Your task to perform on an android device: show emergency info Image 0: 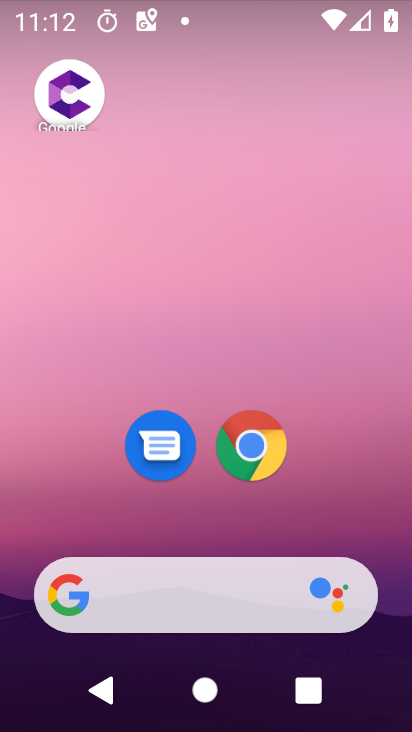
Step 0: drag from (132, 479) to (218, 115)
Your task to perform on an android device: show emergency info Image 1: 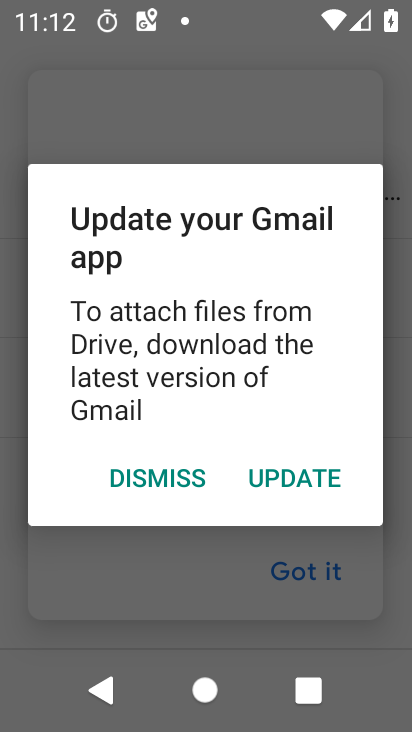
Step 1: press back button
Your task to perform on an android device: show emergency info Image 2: 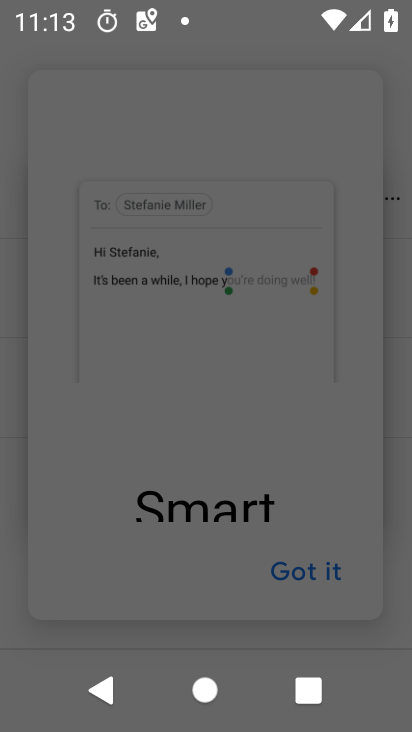
Step 2: press home button
Your task to perform on an android device: show emergency info Image 3: 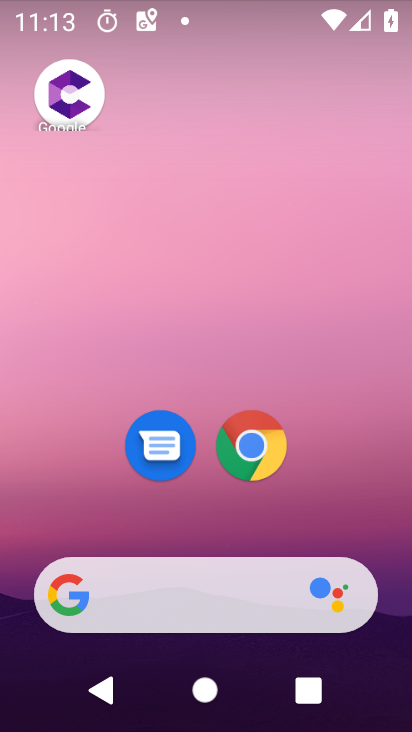
Step 3: drag from (190, 502) to (257, 71)
Your task to perform on an android device: show emergency info Image 4: 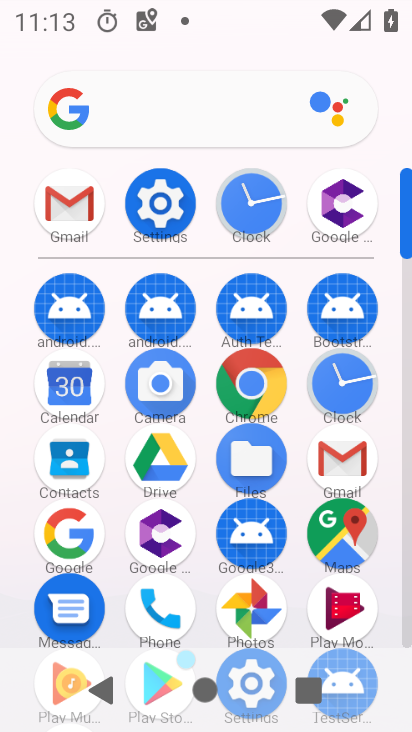
Step 4: click (159, 205)
Your task to perform on an android device: show emergency info Image 5: 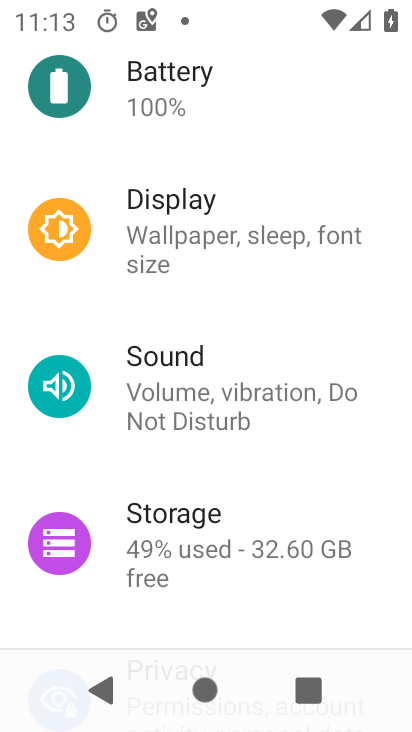
Step 5: drag from (202, 533) to (266, 188)
Your task to perform on an android device: show emergency info Image 6: 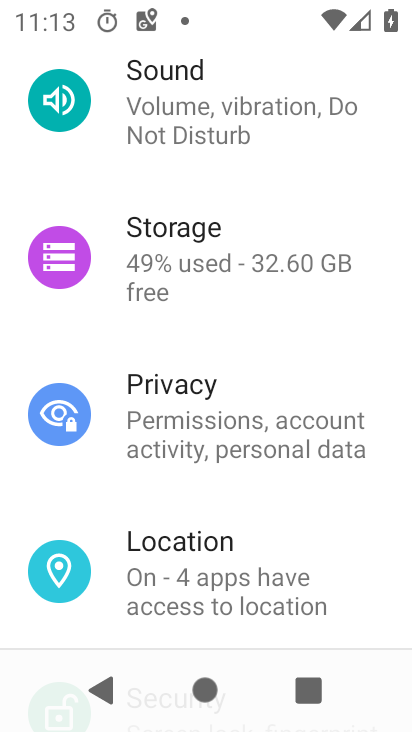
Step 6: drag from (168, 612) to (209, 143)
Your task to perform on an android device: show emergency info Image 7: 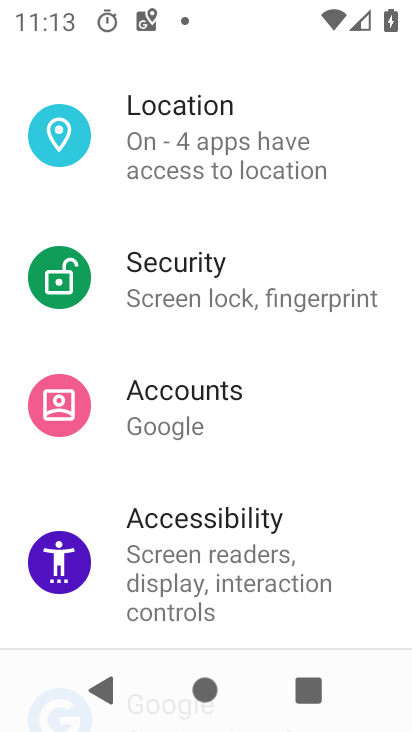
Step 7: drag from (175, 601) to (246, 185)
Your task to perform on an android device: show emergency info Image 8: 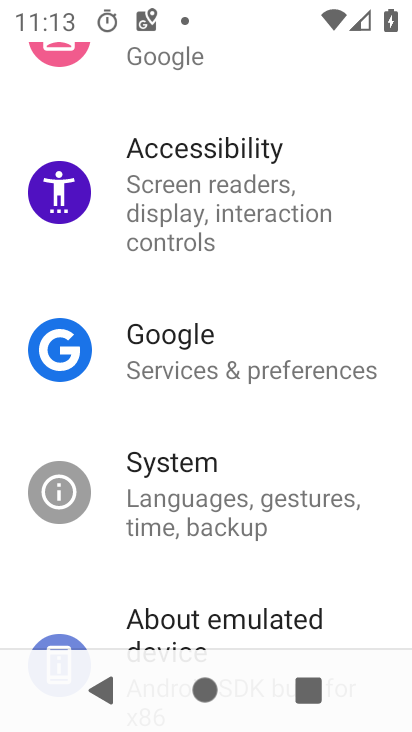
Step 8: drag from (185, 600) to (220, 57)
Your task to perform on an android device: show emergency info Image 9: 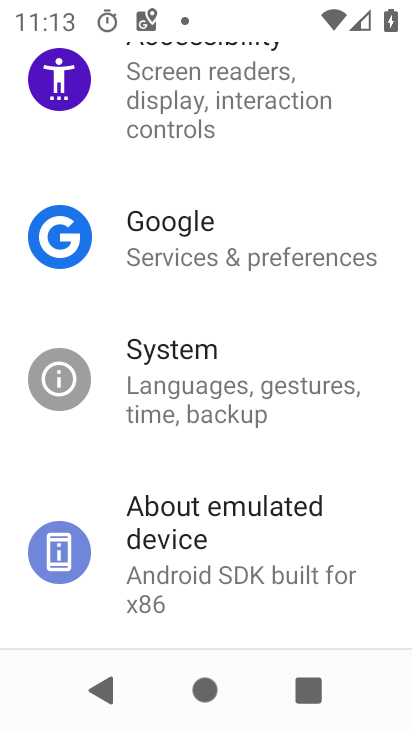
Step 9: drag from (143, 561) to (249, 99)
Your task to perform on an android device: show emergency info Image 10: 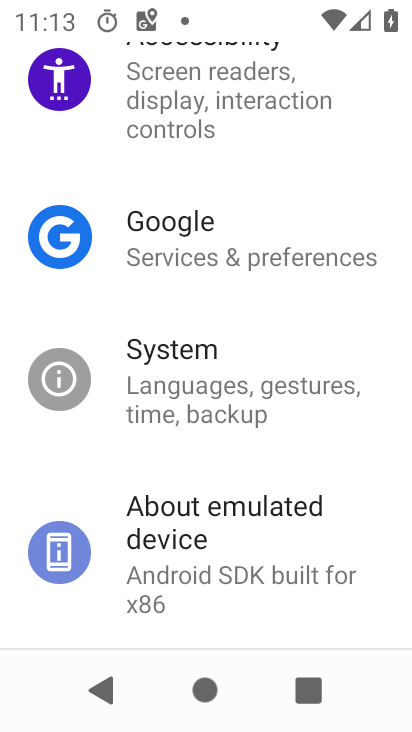
Step 10: click (237, 384)
Your task to perform on an android device: show emergency info Image 11: 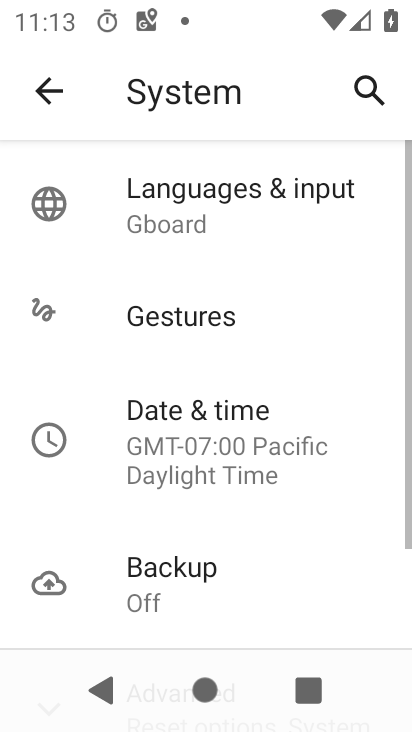
Step 11: drag from (225, 535) to (331, 62)
Your task to perform on an android device: show emergency info Image 12: 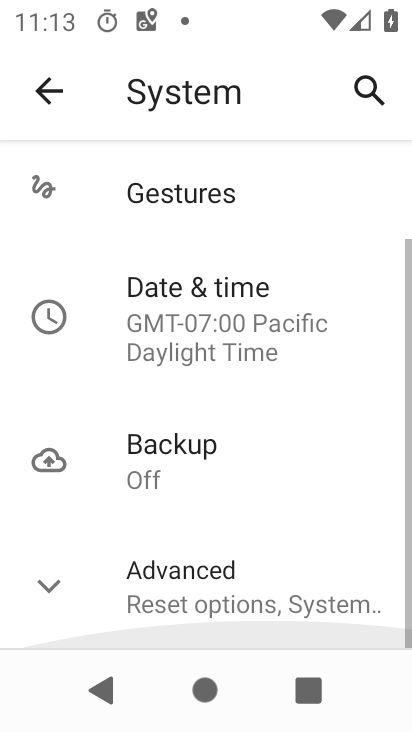
Step 12: drag from (221, 488) to (274, 111)
Your task to perform on an android device: show emergency info Image 13: 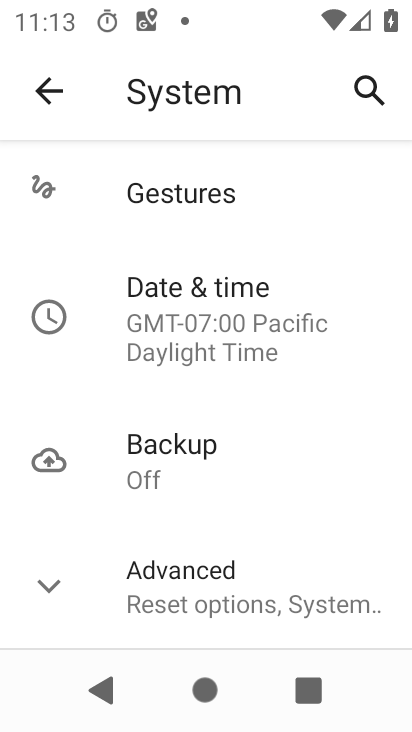
Step 13: click (46, 93)
Your task to perform on an android device: show emergency info Image 14: 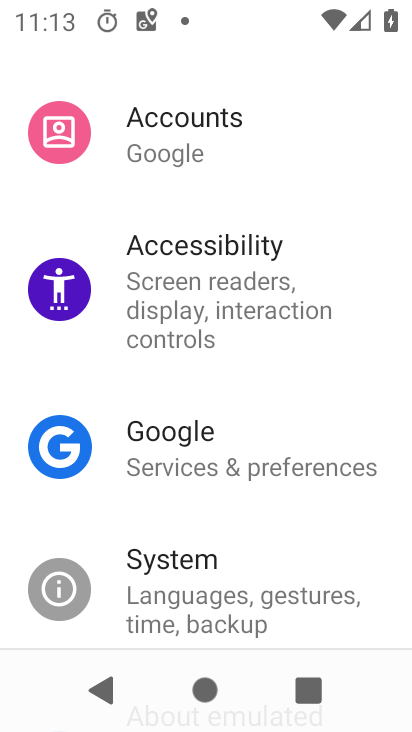
Step 14: drag from (219, 603) to (271, 98)
Your task to perform on an android device: show emergency info Image 15: 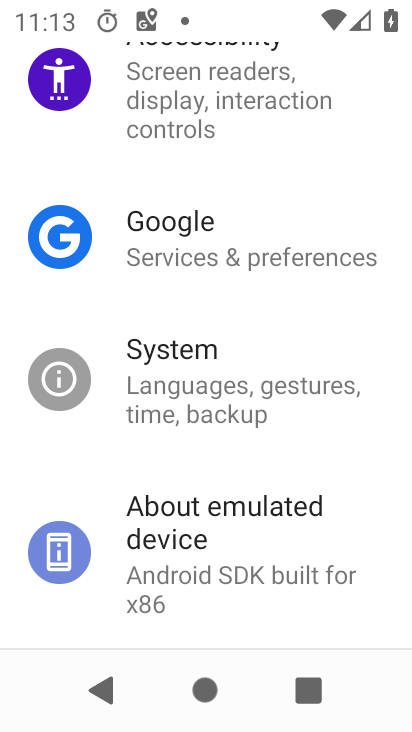
Step 15: click (217, 547)
Your task to perform on an android device: show emergency info Image 16: 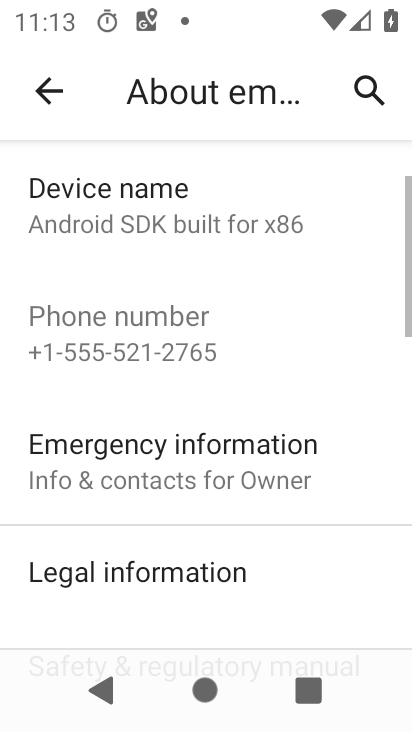
Step 16: click (157, 460)
Your task to perform on an android device: show emergency info Image 17: 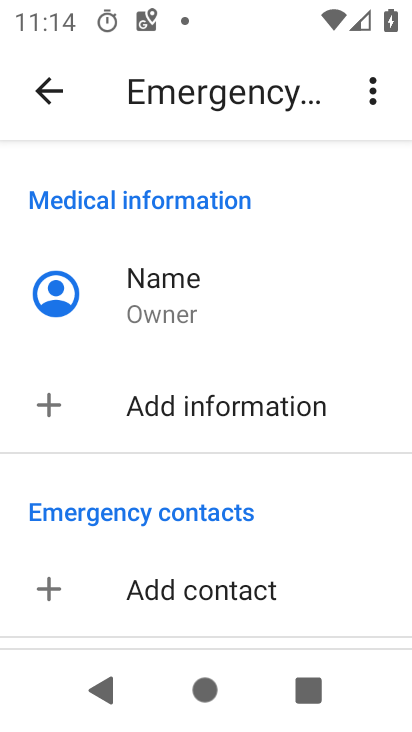
Step 17: task complete